Your task to perform on an android device: all mails in gmail Image 0: 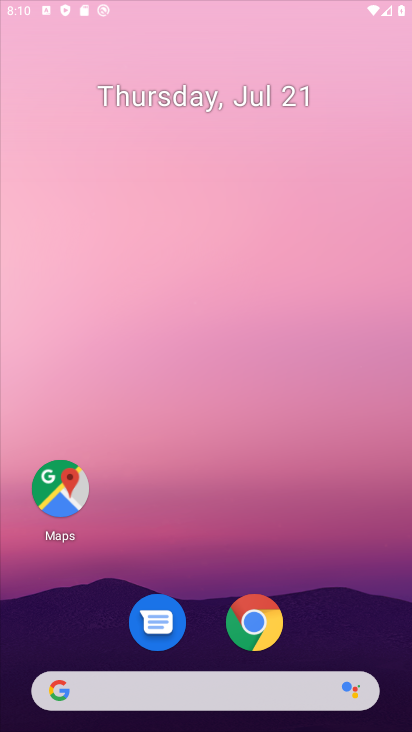
Step 0: click (281, 675)
Your task to perform on an android device: all mails in gmail Image 1: 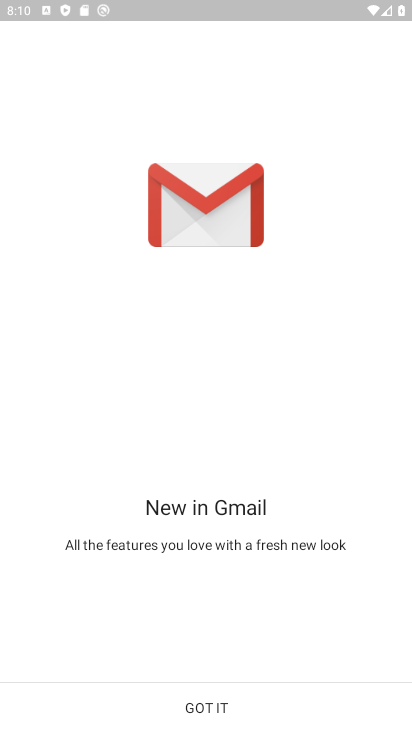
Step 1: click (138, 702)
Your task to perform on an android device: all mails in gmail Image 2: 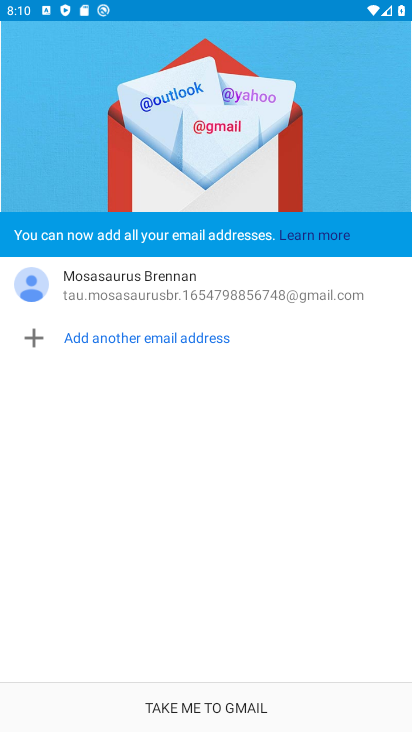
Step 2: click (138, 702)
Your task to perform on an android device: all mails in gmail Image 3: 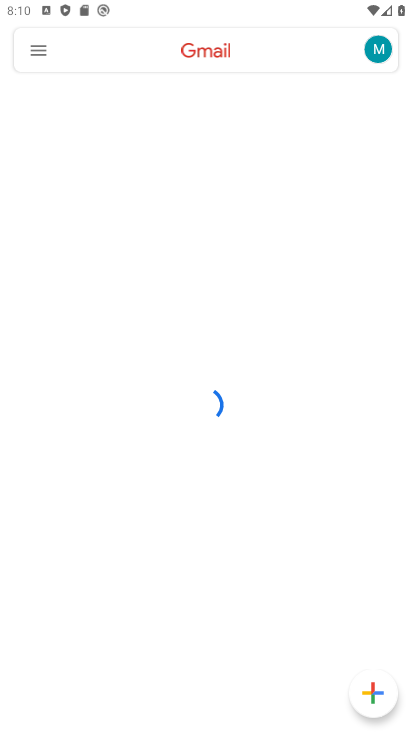
Step 3: click (32, 57)
Your task to perform on an android device: all mails in gmail Image 4: 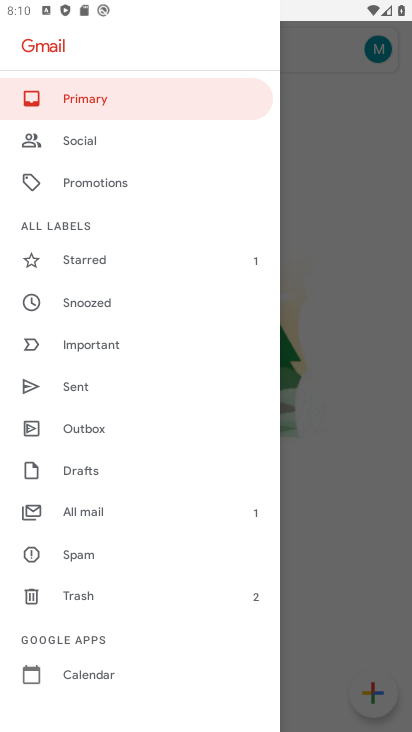
Step 4: click (93, 511)
Your task to perform on an android device: all mails in gmail Image 5: 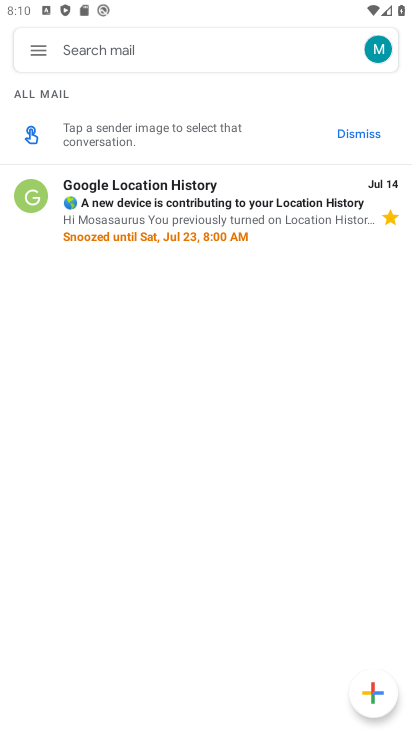
Step 5: task complete